Your task to perform on an android device: remove spam from my inbox in the gmail app Image 0: 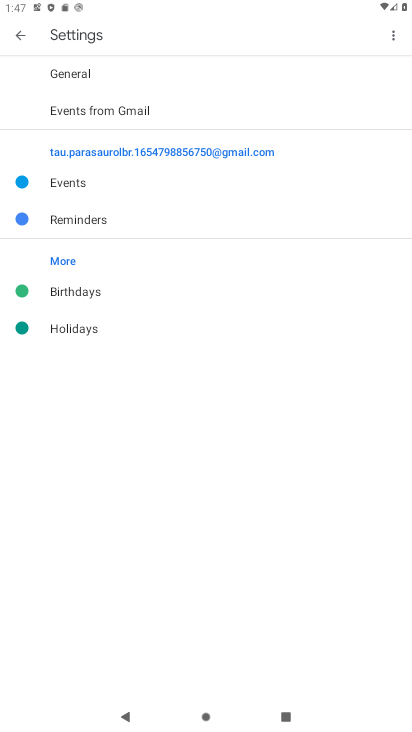
Step 0: press home button
Your task to perform on an android device: remove spam from my inbox in the gmail app Image 1: 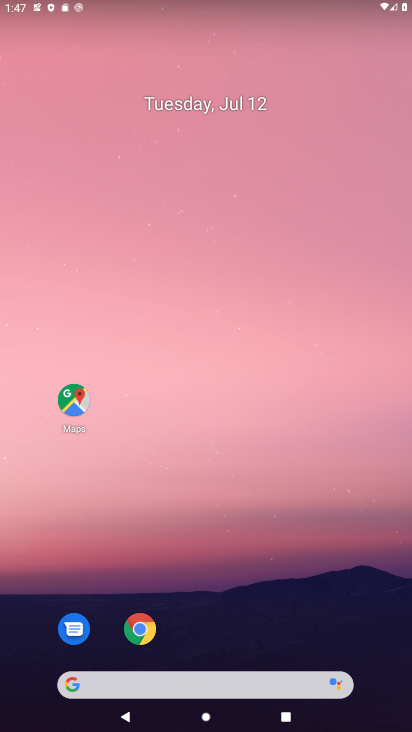
Step 1: drag from (273, 609) to (303, 87)
Your task to perform on an android device: remove spam from my inbox in the gmail app Image 2: 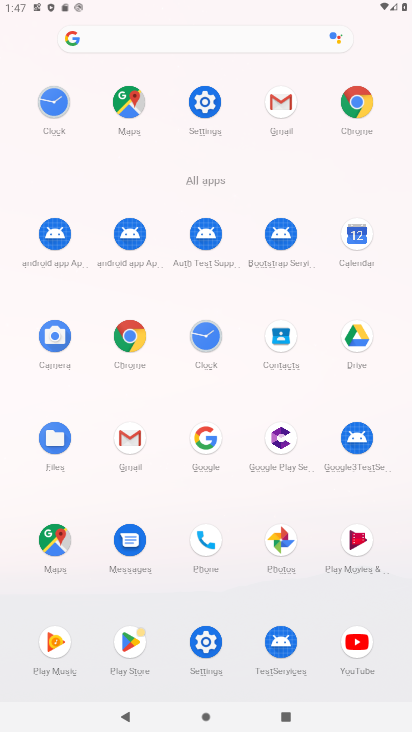
Step 2: click (288, 102)
Your task to perform on an android device: remove spam from my inbox in the gmail app Image 3: 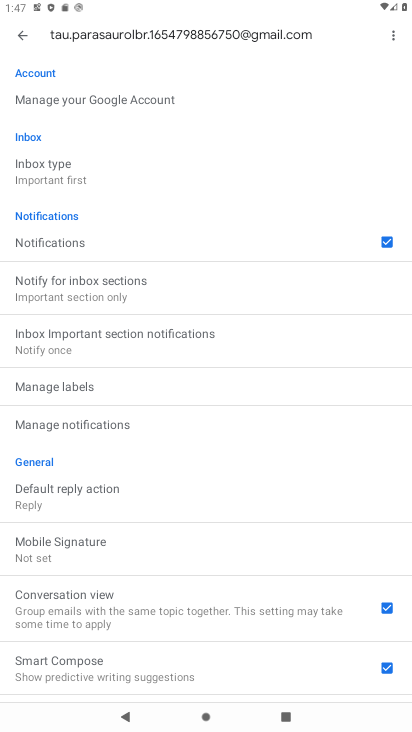
Step 3: click (20, 35)
Your task to perform on an android device: remove spam from my inbox in the gmail app Image 4: 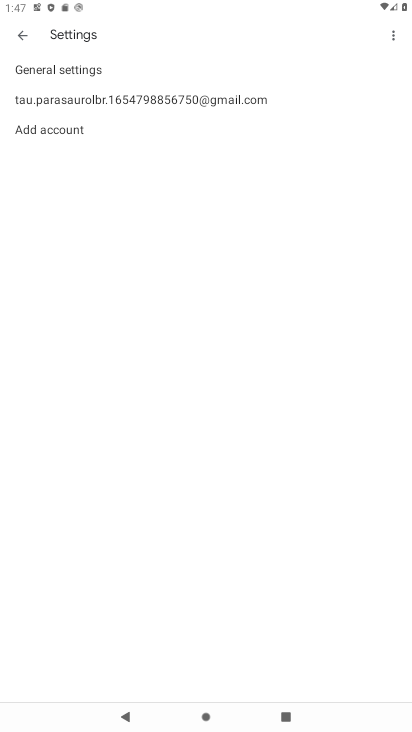
Step 4: click (24, 35)
Your task to perform on an android device: remove spam from my inbox in the gmail app Image 5: 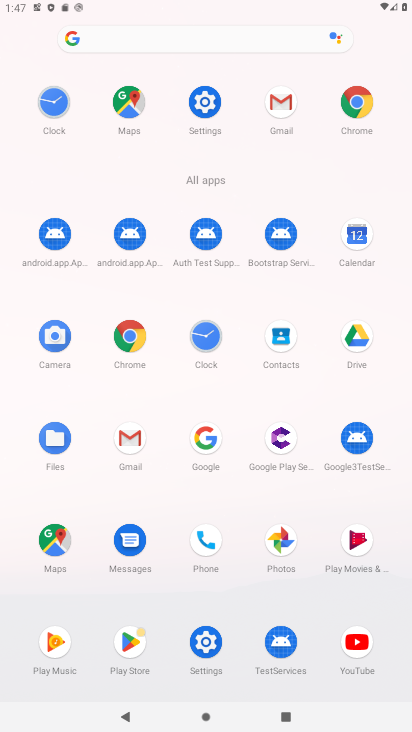
Step 5: click (278, 114)
Your task to perform on an android device: remove spam from my inbox in the gmail app Image 6: 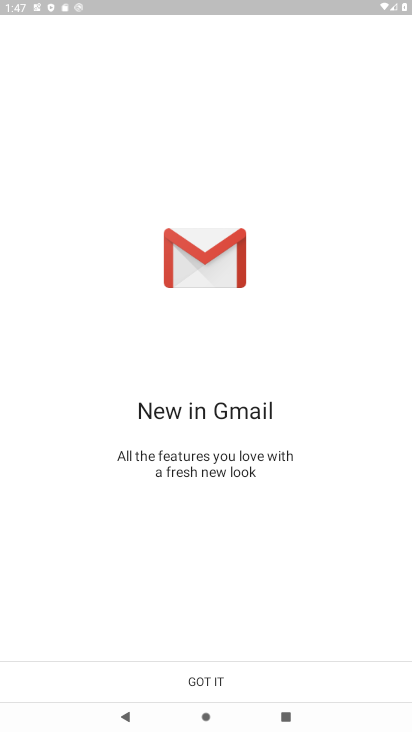
Step 6: click (225, 683)
Your task to perform on an android device: remove spam from my inbox in the gmail app Image 7: 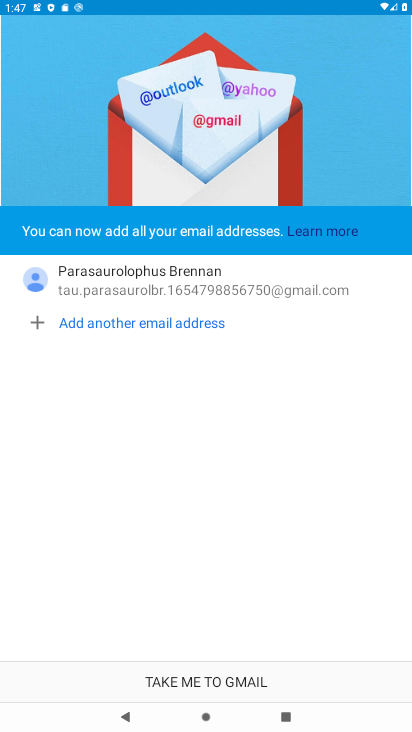
Step 7: click (234, 684)
Your task to perform on an android device: remove spam from my inbox in the gmail app Image 8: 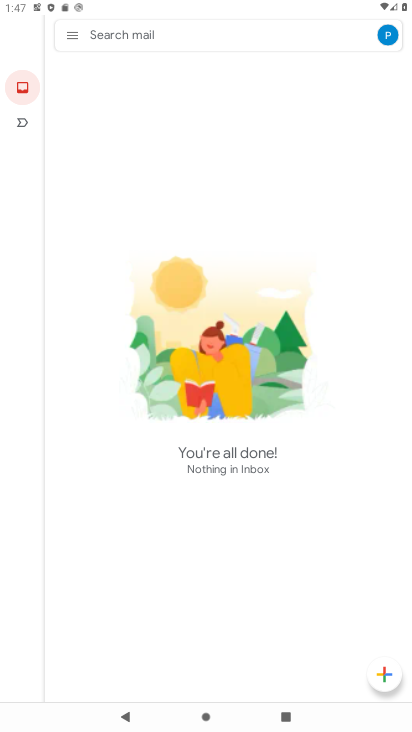
Step 8: click (59, 26)
Your task to perform on an android device: remove spam from my inbox in the gmail app Image 9: 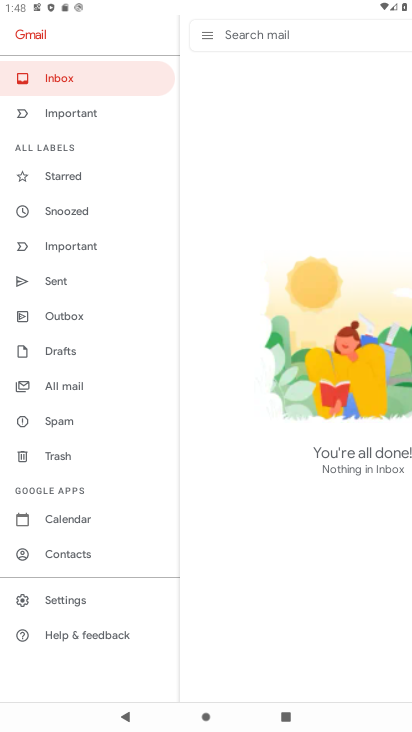
Step 9: click (96, 416)
Your task to perform on an android device: remove spam from my inbox in the gmail app Image 10: 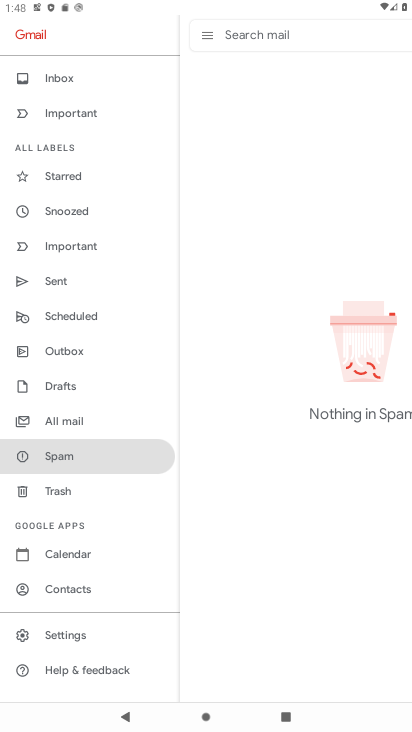
Step 10: task complete